Your task to perform on an android device: turn on notifications settings in the gmail app Image 0: 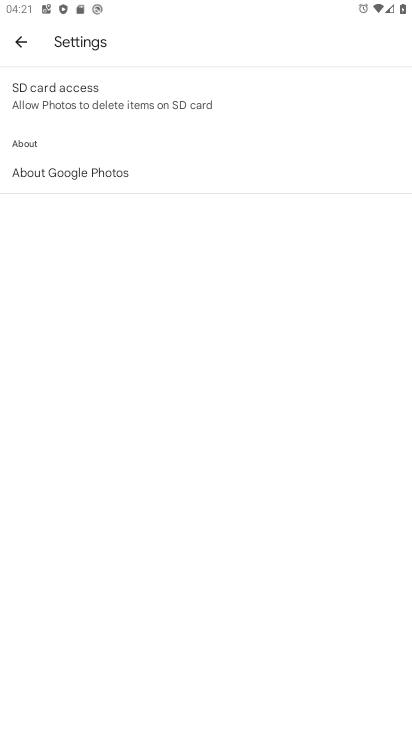
Step 0: press home button
Your task to perform on an android device: turn on notifications settings in the gmail app Image 1: 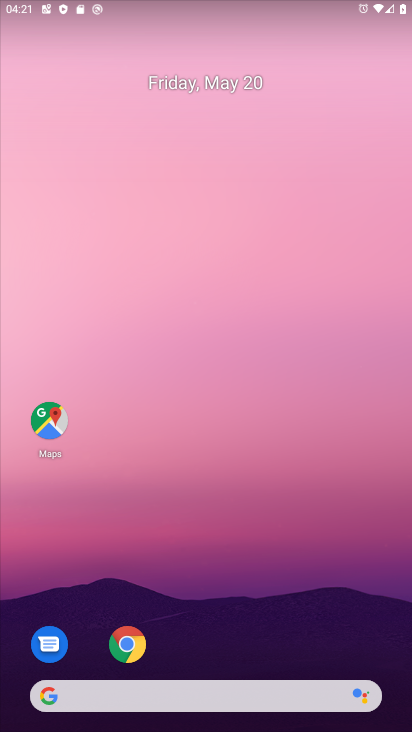
Step 1: drag from (291, 608) to (173, 32)
Your task to perform on an android device: turn on notifications settings in the gmail app Image 2: 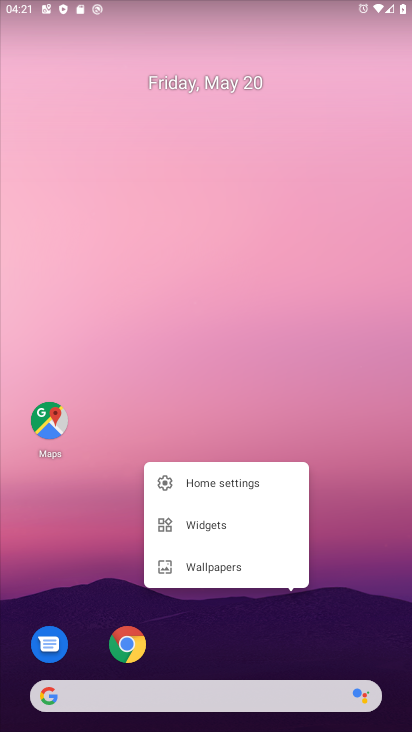
Step 2: click (231, 231)
Your task to perform on an android device: turn on notifications settings in the gmail app Image 3: 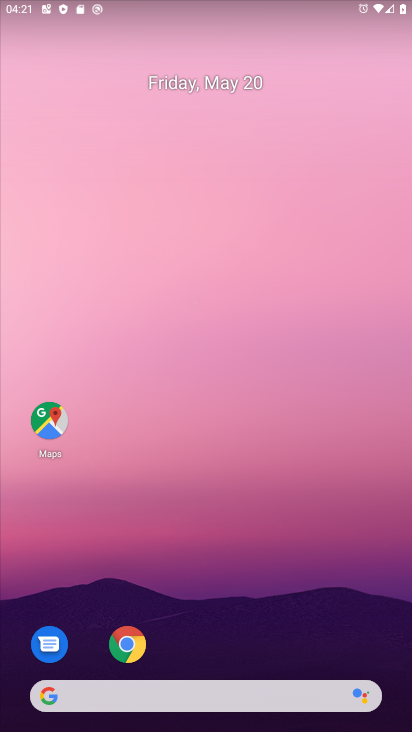
Step 3: drag from (270, 600) to (197, 102)
Your task to perform on an android device: turn on notifications settings in the gmail app Image 4: 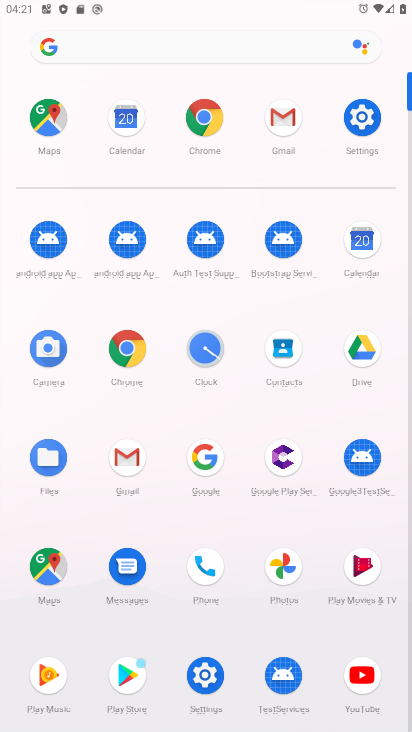
Step 4: click (291, 125)
Your task to perform on an android device: turn on notifications settings in the gmail app Image 5: 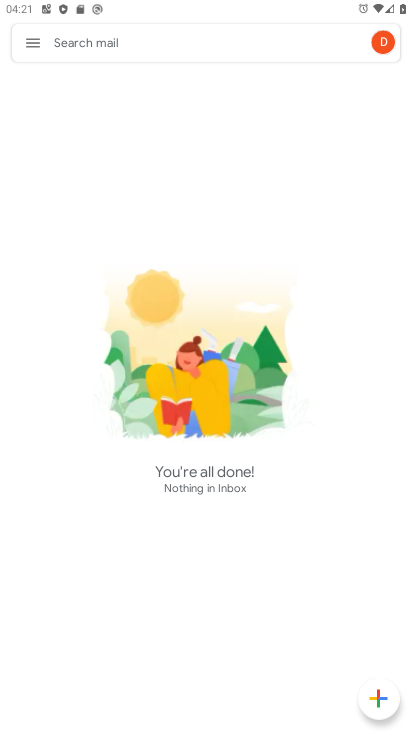
Step 5: click (28, 32)
Your task to perform on an android device: turn on notifications settings in the gmail app Image 6: 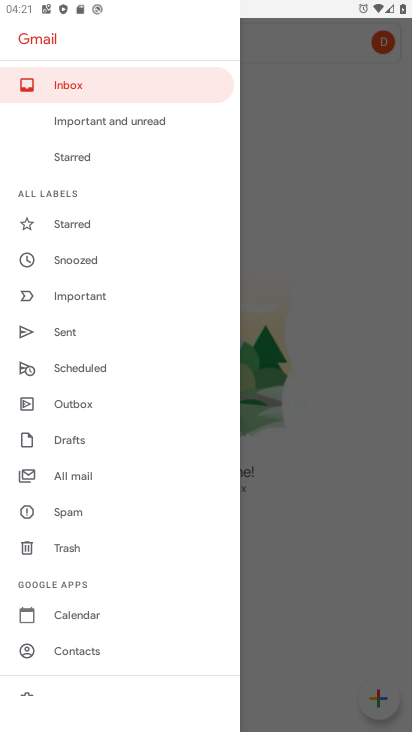
Step 6: drag from (132, 663) to (75, 429)
Your task to perform on an android device: turn on notifications settings in the gmail app Image 7: 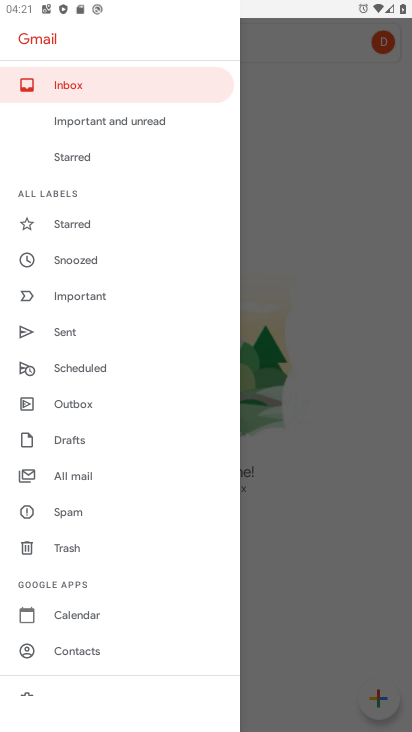
Step 7: click (103, 684)
Your task to perform on an android device: turn on notifications settings in the gmail app Image 8: 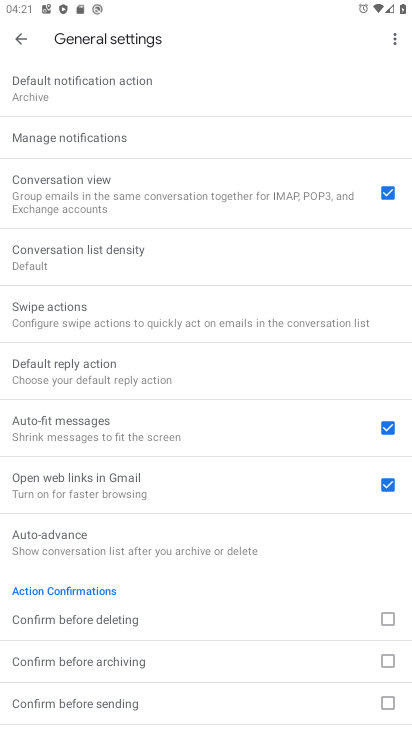
Step 8: click (140, 121)
Your task to perform on an android device: turn on notifications settings in the gmail app Image 9: 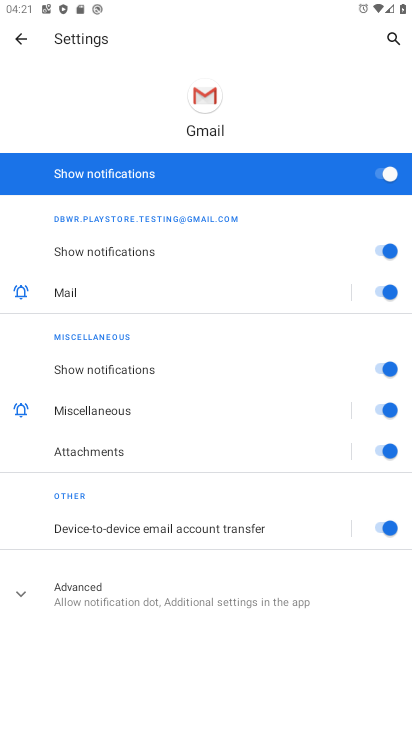
Step 9: task complete